Your task to perform on an android device: Go to sound settings Image 0: 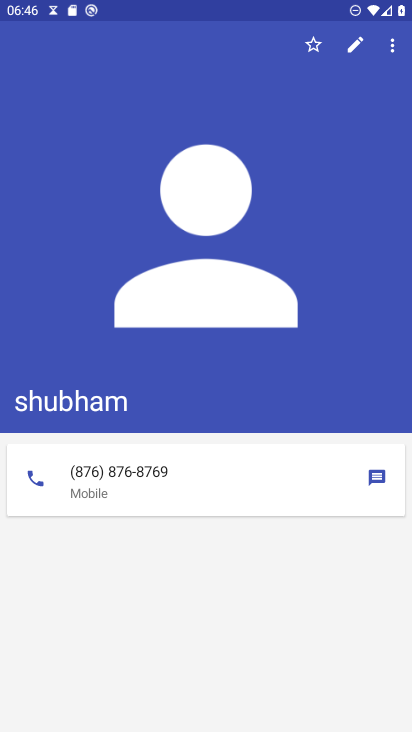
Step 0: press home button
Your task to perform on an android device: Go to sound settings Image 1: 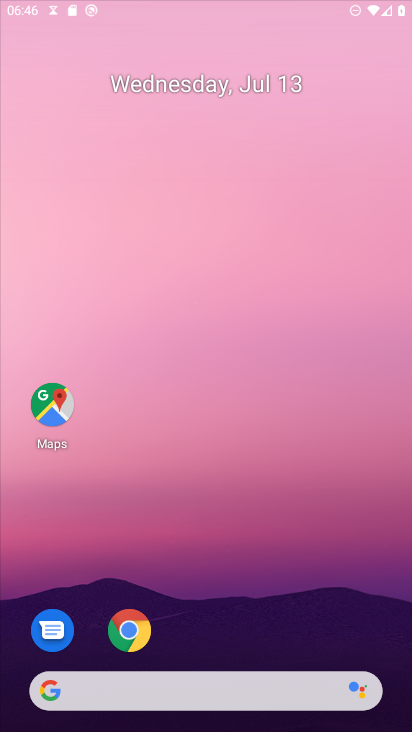
Step 1: drag from (245, 690) to (306, 8)
Your task to perform on an android device: Go to sound settings Image 2: 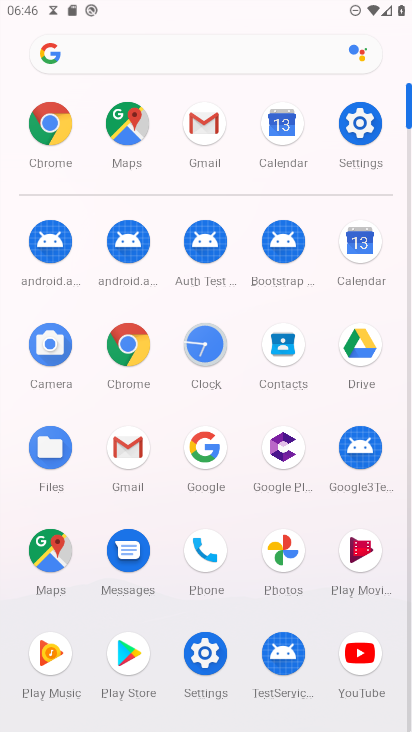
Step 2: click (355, 120)
Your task to perform on an android device: Go to sound settings Image 3: 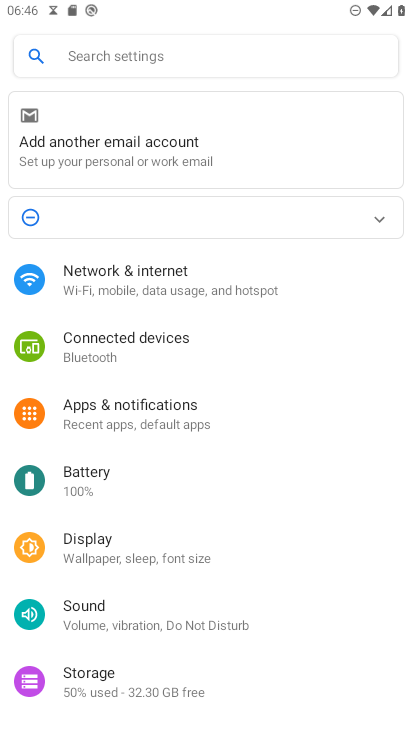
Step 3: click (148, 618)
Your task to perform on an android device: Go to sound settings Image 4: 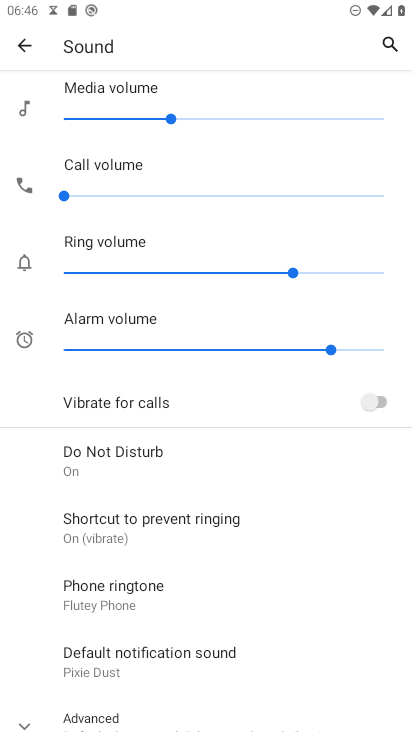
Step 4: task complete